Your task to perform on an android device: What's the weather going to be this weekend? Image 0: 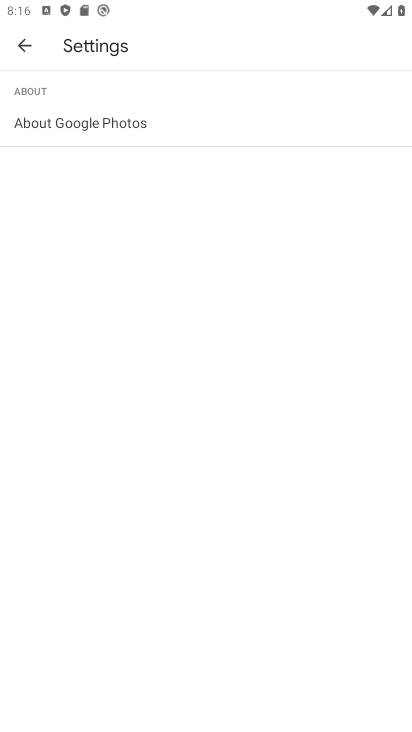
Step 0: press home button
Your task to perform on an android device: What's the weather going to be this weekend? Image 1: 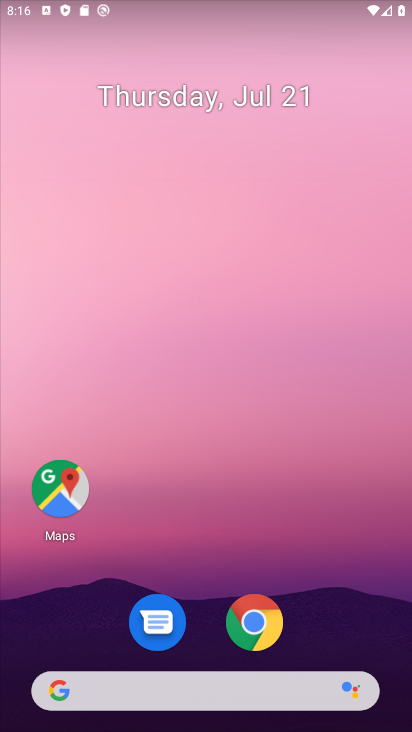
Step 1: drag from (254, 689) to (345, 79)
Your task to perform on an android device: What's the weather going to be this weekend? Image 2: 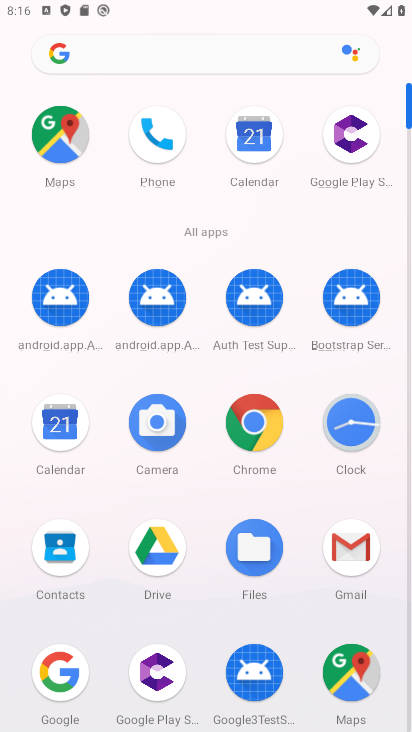
Step 2: click (140, 55)
Your task to perform on an android device: What's the weather going to be this weekend? Image 3: 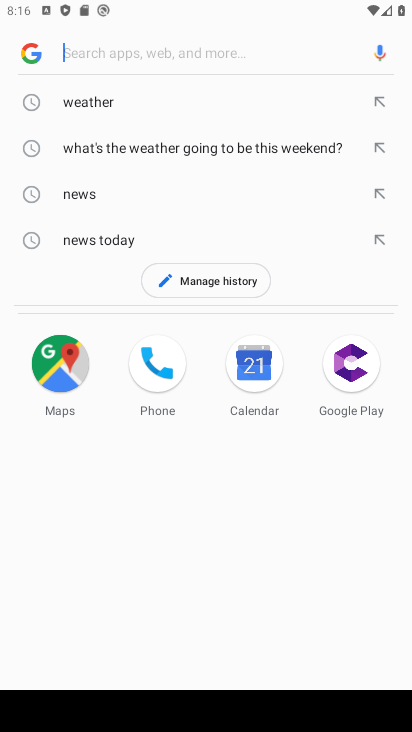
Step 3: type "What's the weather going to be this weekend?"
Your task to perform on an android device: What's the weather going to be this weekend? Image 4: 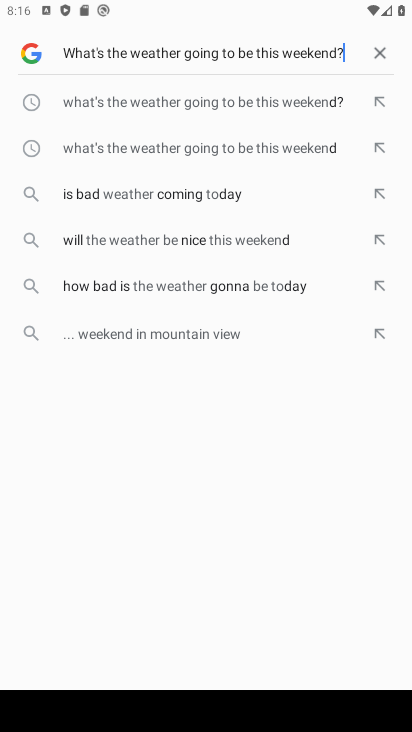
Step 4: press enter
Your task to perform on an android device: What's the weather going to be this weekend? Image 5: 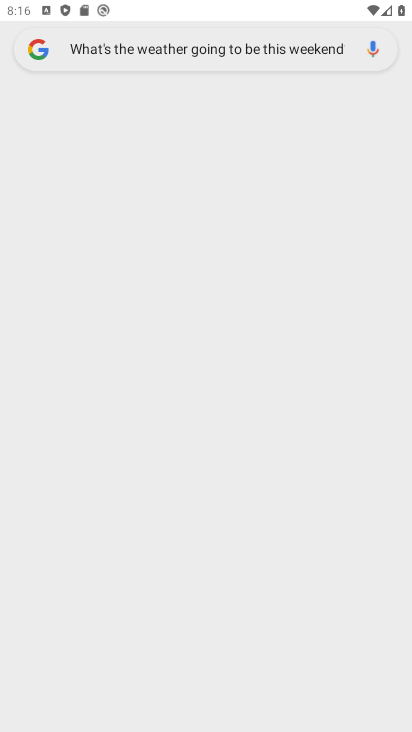
Step 5: press enter
Your task to perform on an android device: What's the weather going to be this weekend? Image 6: 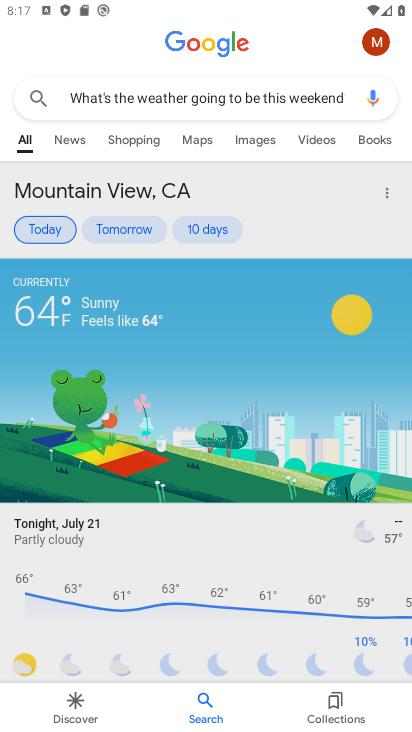
Step 6: task complete